Your task to perform on an android device: turn off notifications in google photos Image 0: 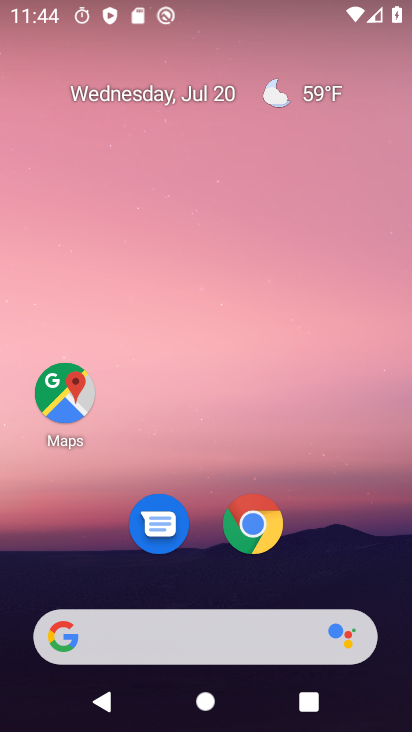
Step 0: drag from (222, 643) to (313, 144)
Your task to perform on an android device: turn off notifications in google photos Image 1: 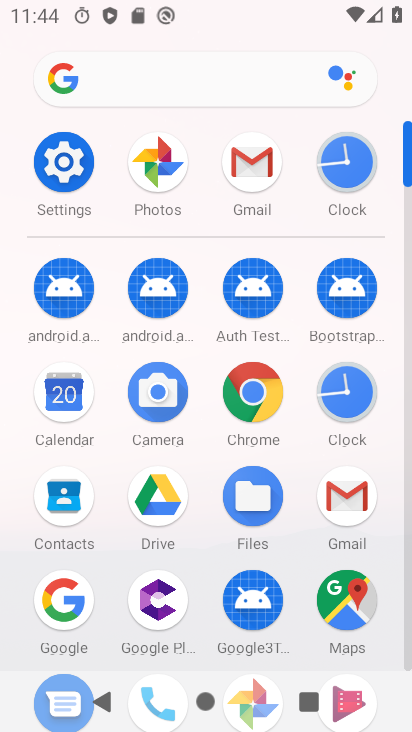
Step 1: click (153, 157)
Your task to perform on an android device: turn off notifications in google photos Image 2: 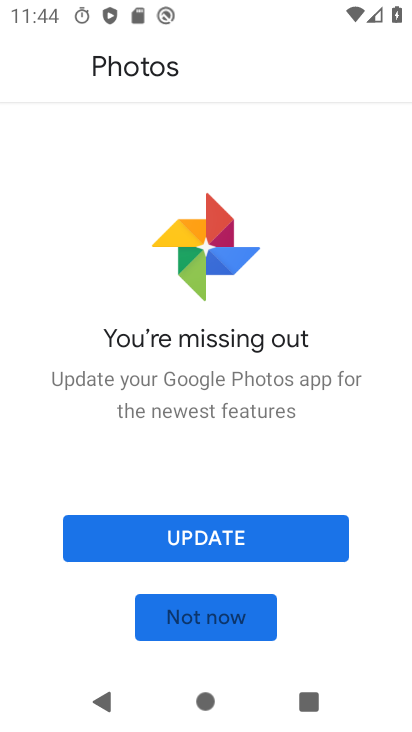
Step 2: click (188, 618)
Your task to perform on an android device: turn off notifications in google photos Image 3: 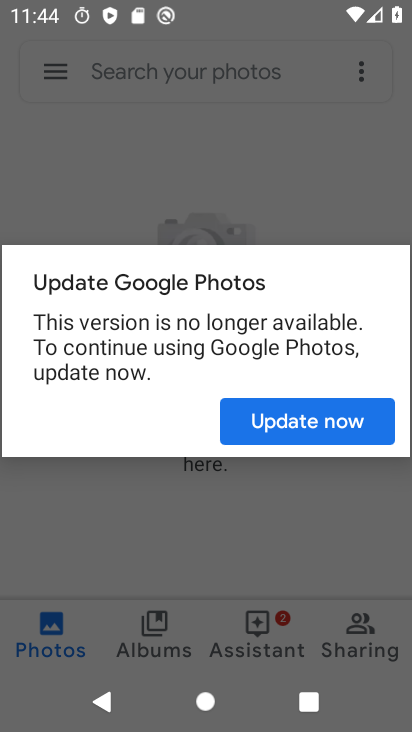
Step 3: click (293, 423)
Your task to perform on an android device: turn off notifications in google photos Image 4: 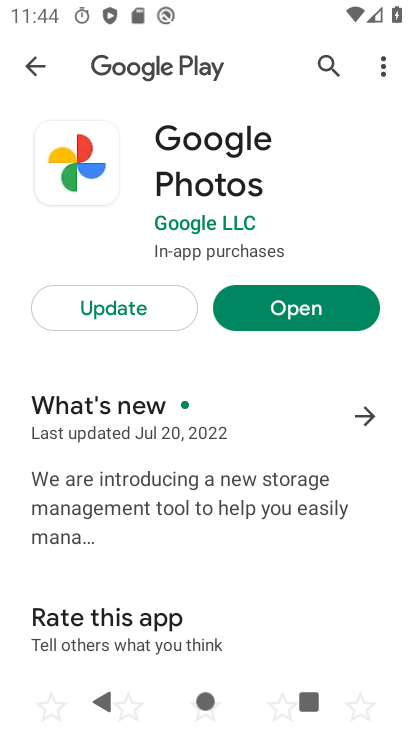
Step 4: click (313, 303)
Your task to perform on an android device: turn off notifications in google photos Image 5: 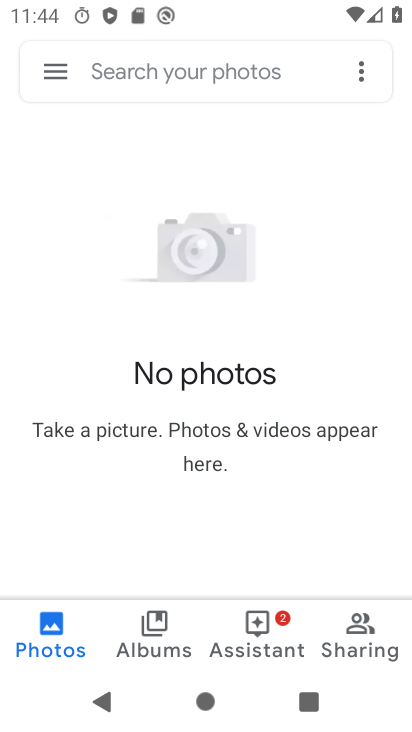
Step 5: click (62, 67)
Your task to perform on an android device: turn off notifications in google photos Image 6: 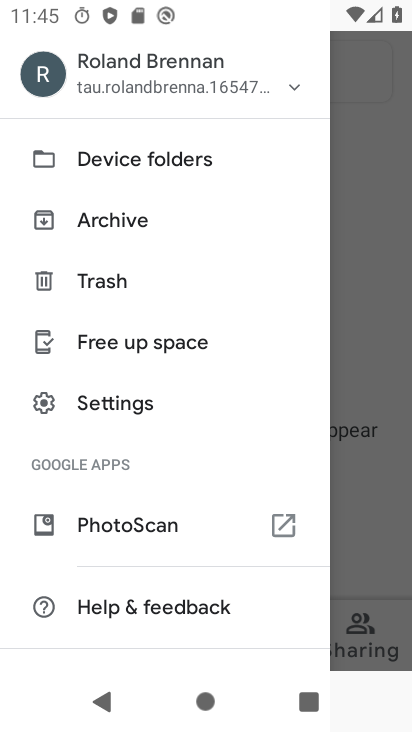
Step 6: click (124, 404)
Your task to perform on an android device: turn off notifications in google photos Image 7: 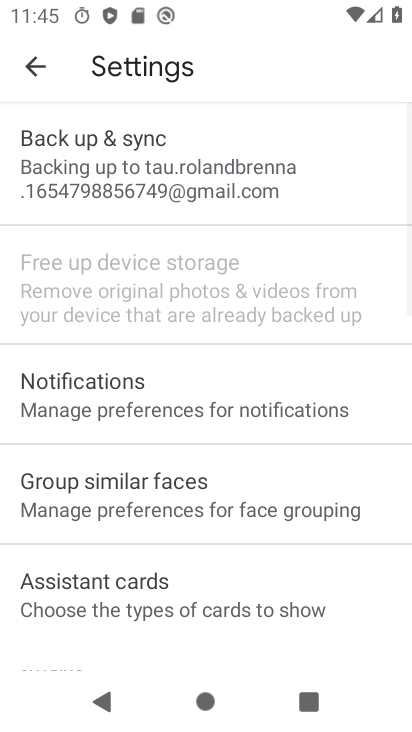
Step 7: click (140, 397)
Your task to perform on an android device: turn off notifications in google photos Image 8: 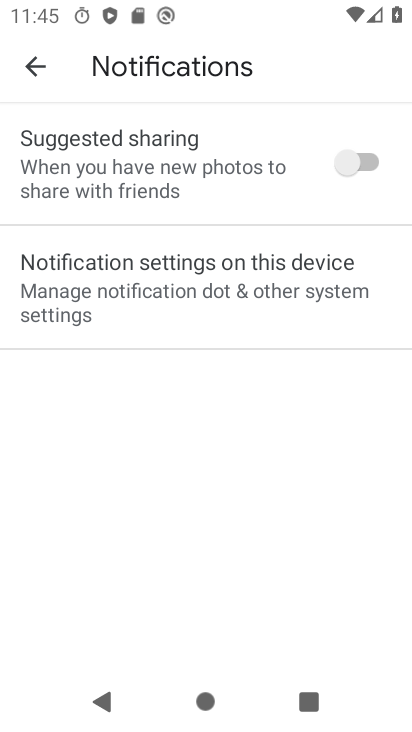
Step 8: click (157, 287)
Your task to perform on an android device: turn off notifications in google photos Image 9: 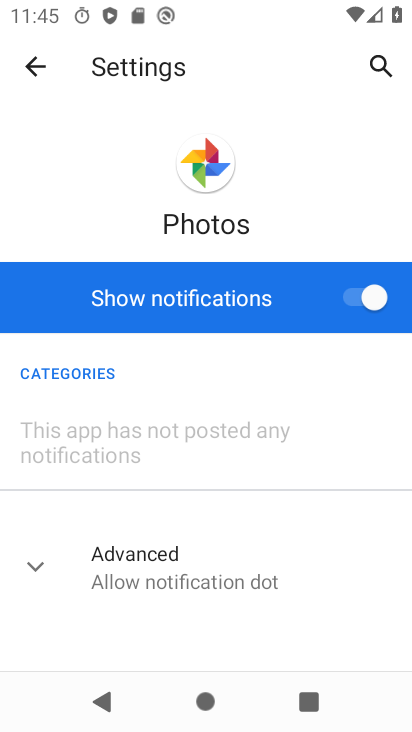
Step 9: click (353, 295)
Your task to perform on an android device: turn off notifications in google photos Image 10: 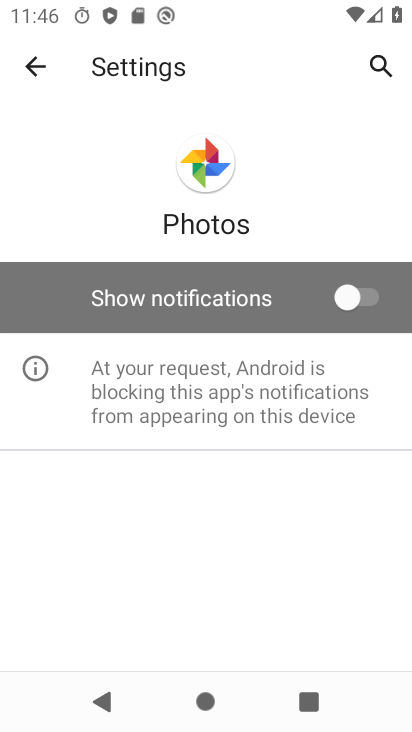
Step 10: task complete